Your task to perform on an android device: turn off improve location accuracy Image 0: 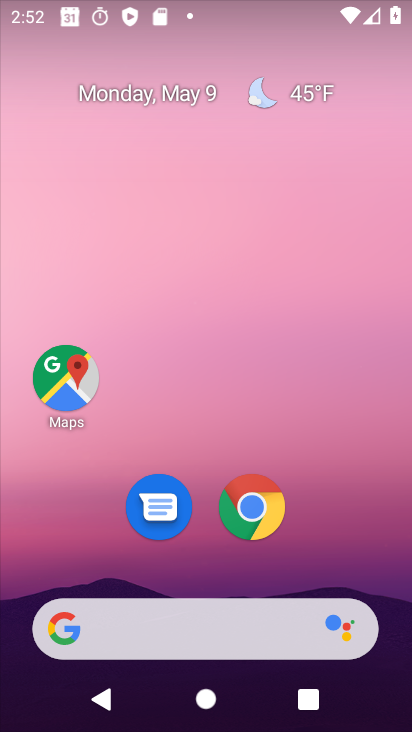
Step 0: drag from (206, 597) to (268, 202)
Your task to perform on an android device: turn off improve location accuracy Image 1: 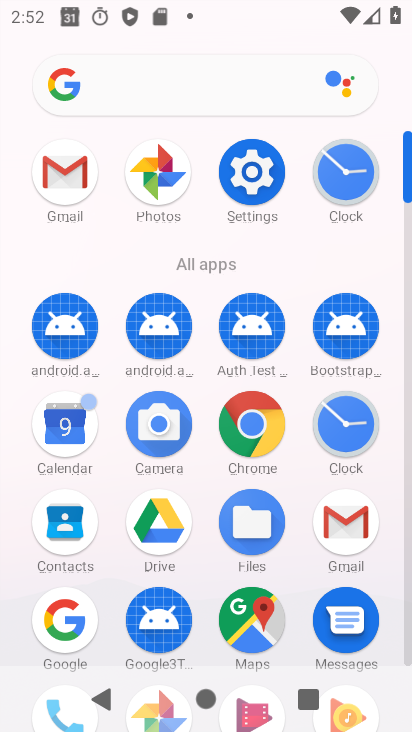
Step 1: click (262, 160)
Your task to perform on an android device: turn off improve location accuracy Image 2: 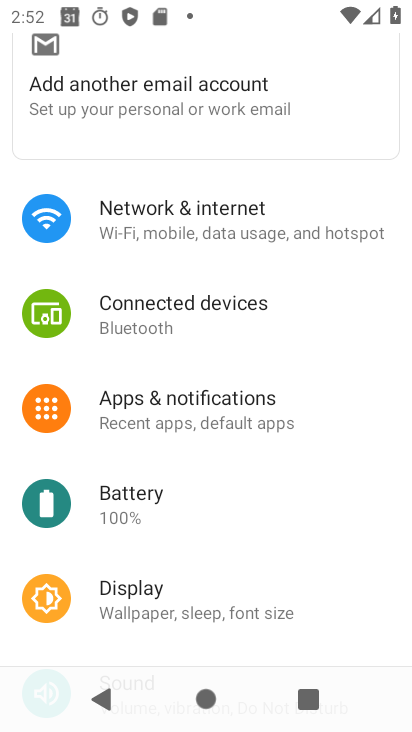
Step 2: drag from (197, 447) to (293, 134)
Your task to perform on an android device: turn off improve location accuracy Image 3: 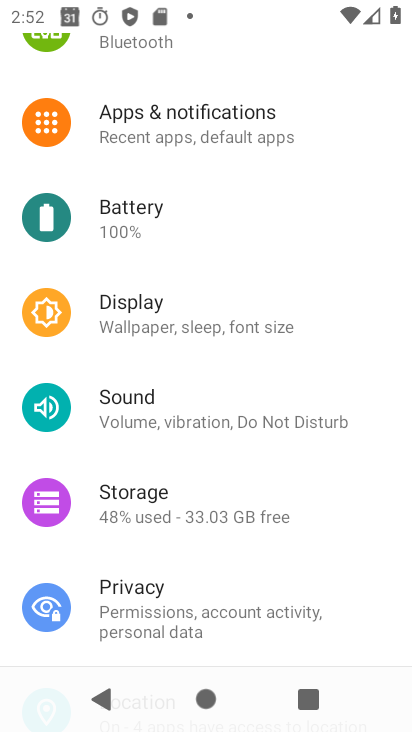
Step 3: drag from (189, 570) to (278, 178)
Your task to perform on an android device: turn off improve location accuracy Image 4: 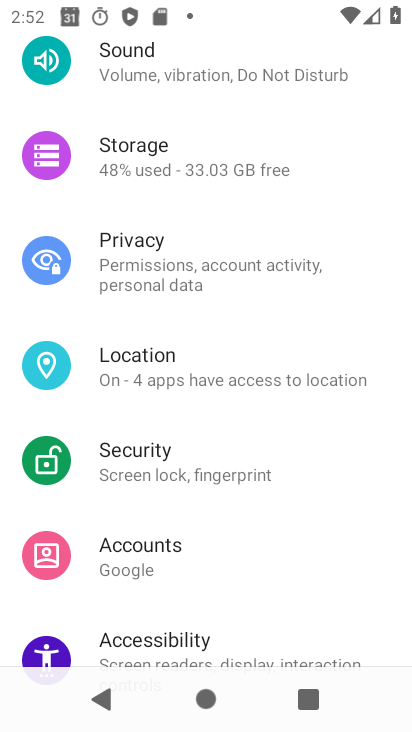
Step 4: click (173, 362)
Your task to perform on an android device: turn off improve location accuracy Image 5: 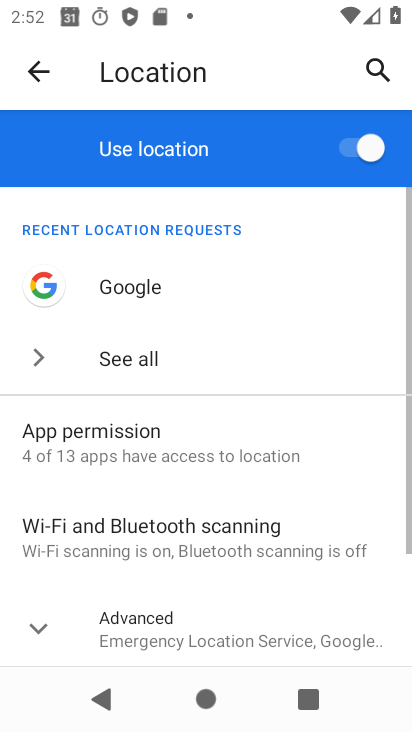
Step 5: drag from (165, 592) to (242, 397)
Your task to perform on an android device: turn off improve location accuracy Image 6: 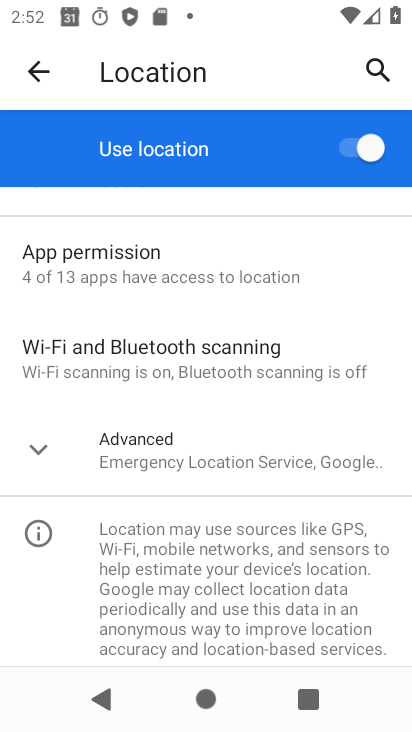
Step 6: click (187, 445)
Your task to perform on an android device: turn off improve location accuracy Image 7: 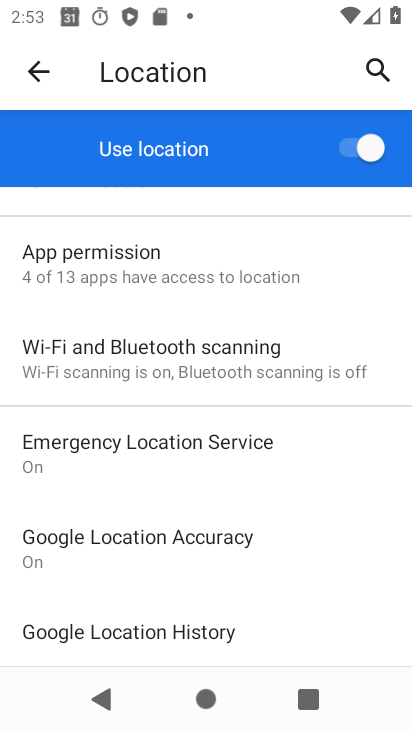
Step 7: click (249, 532)
Your task to perform on an android device: turn off improve location accuracy Image 8: 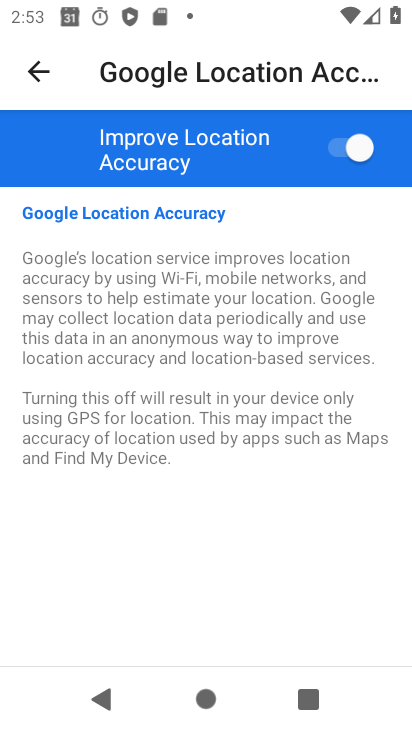
Step 8: click (334, 143)
Your task to perform on an android device: turn off improve location accuracy Image 9: 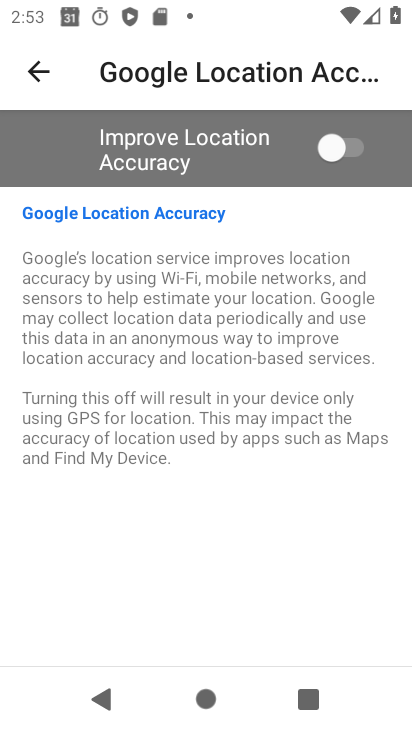
Step 9: task complete